Your task to perform on an android device: Open the stopwatch Image 0: 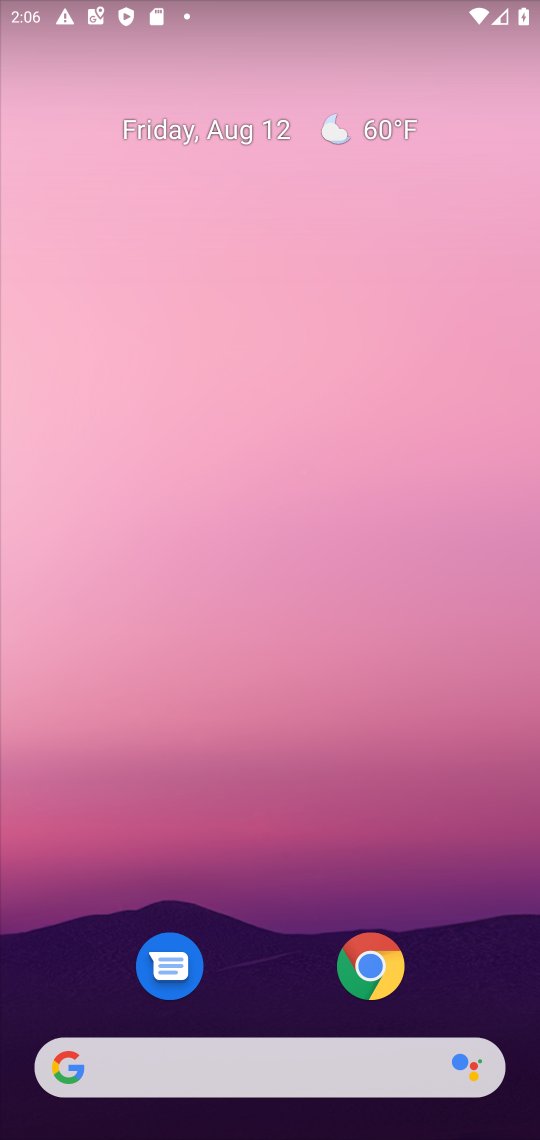
Step 0: drag from (297, 900) to (352, 148)
Your task to perform on an android device: Open the stopwatch Image 1: 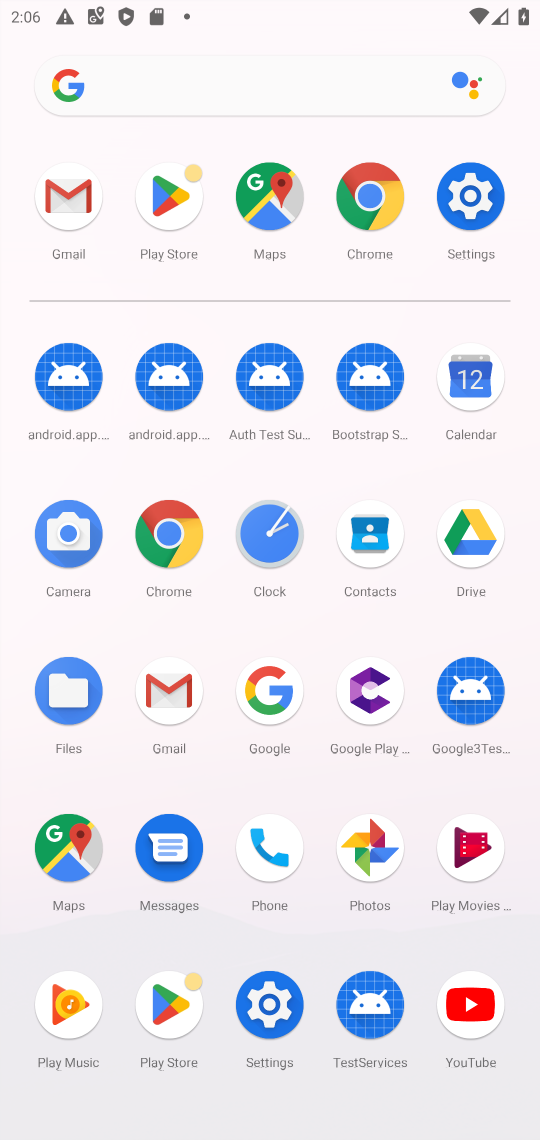
Step 1: click (269, 542)
Your task to perform on an android device: Open the stopwatch Image 2: 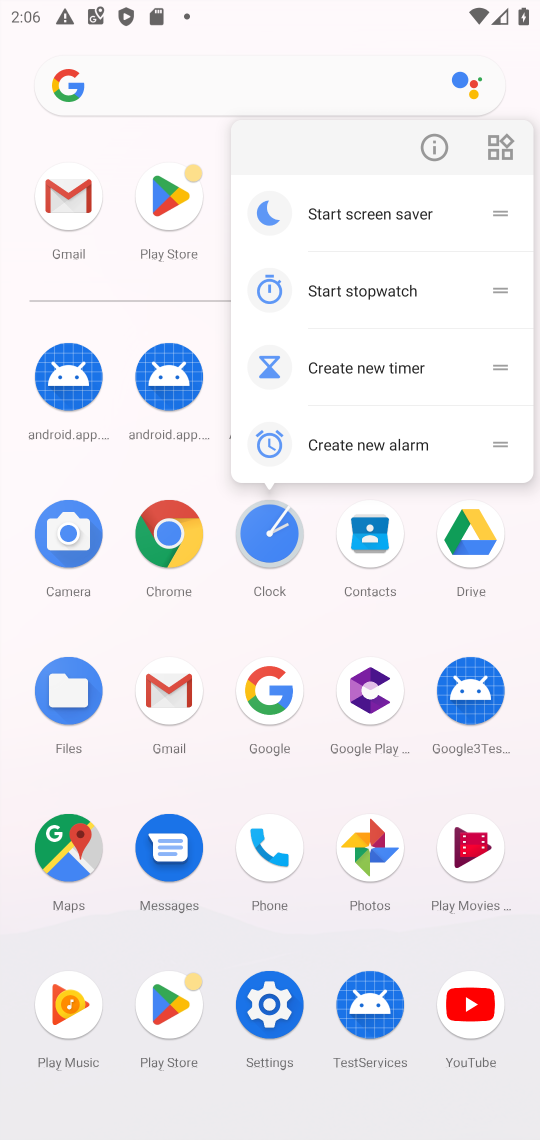
Step 2: click (269, 542)
Your task to perform on an android device: Open the stopwatch Image 3: 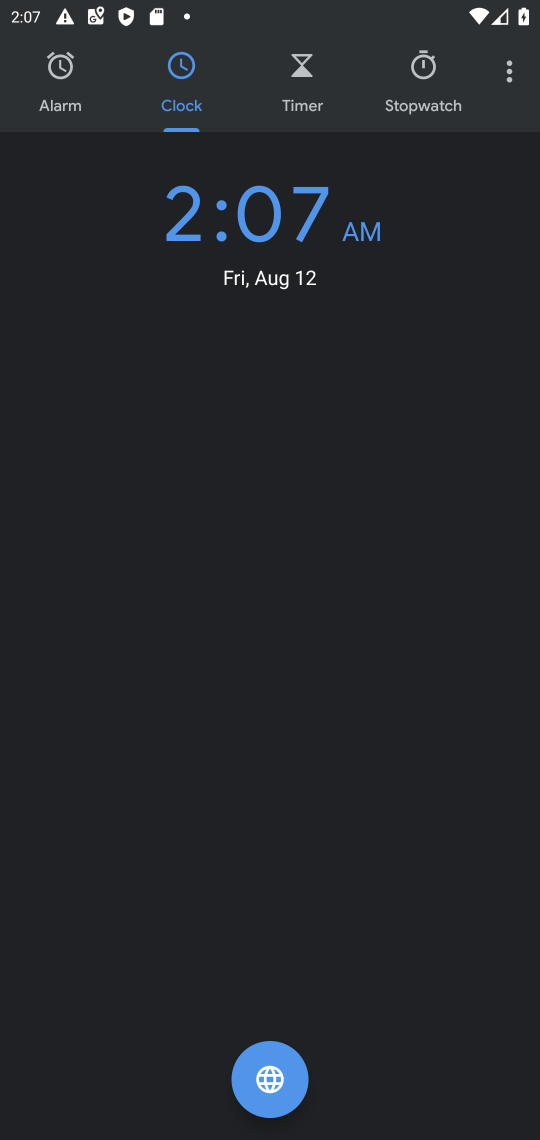
Step 3: click (427, 64)
Your task to perform on an android device: Open the stopwatch Image 4: 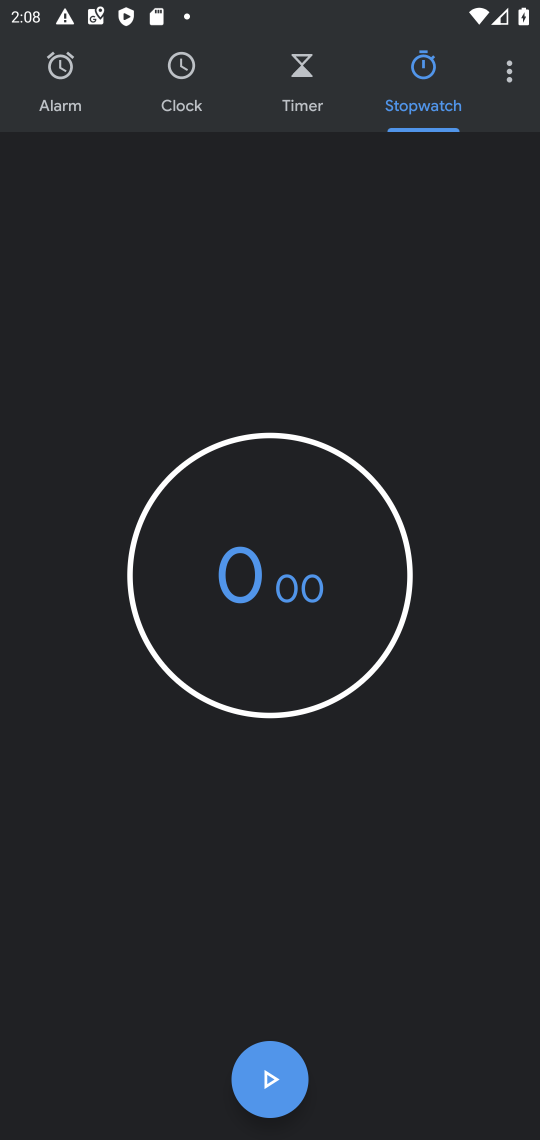
Step 4: task complete